Your task to perform on an android device: check the backup settings in the google photos Image 0: 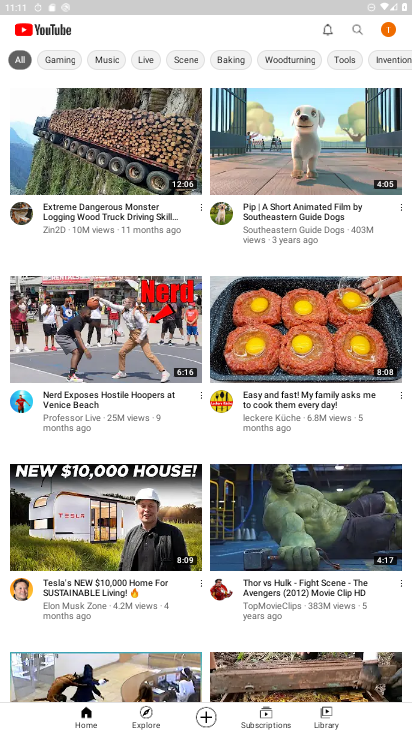
Step 0: press home button
Your task to perform on an android device: check the backup settings in the google photos Image 1: 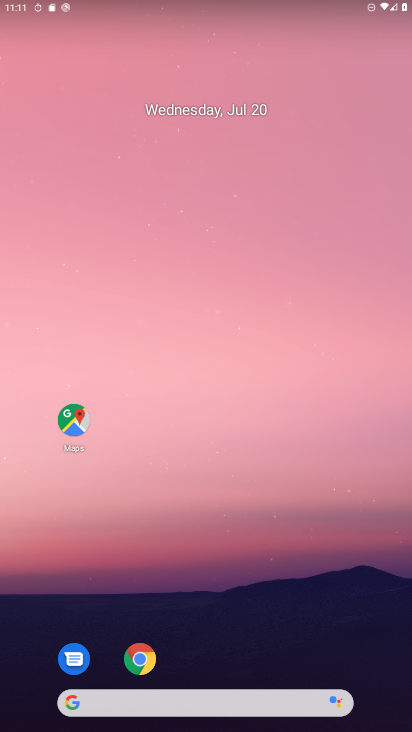
Step 1: drag from (345, 624) to (223, 8)
Your task to perform on an android device: check the backup settings in the google photos Image 2: 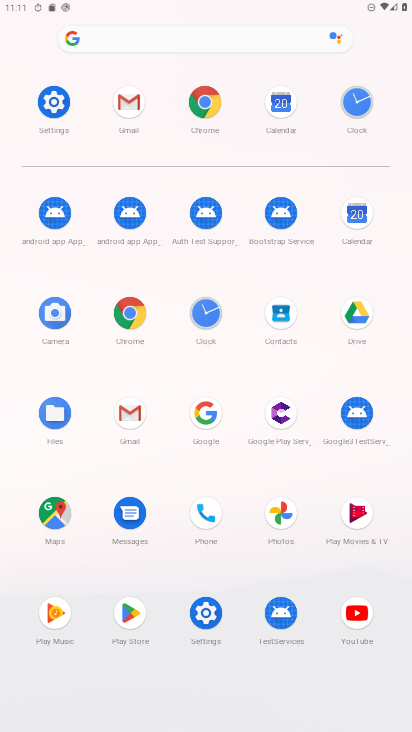
Step 2: click (287, 508)
Your task to perform on an android device: check the backup settings in the google photos Image 3: 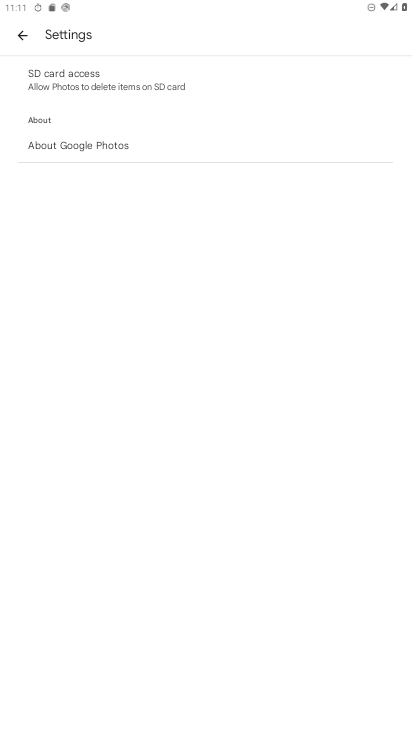
Step 3: click (29, 33)
Your task to perform on an android device: check the backup settings in the google photos Image 4: 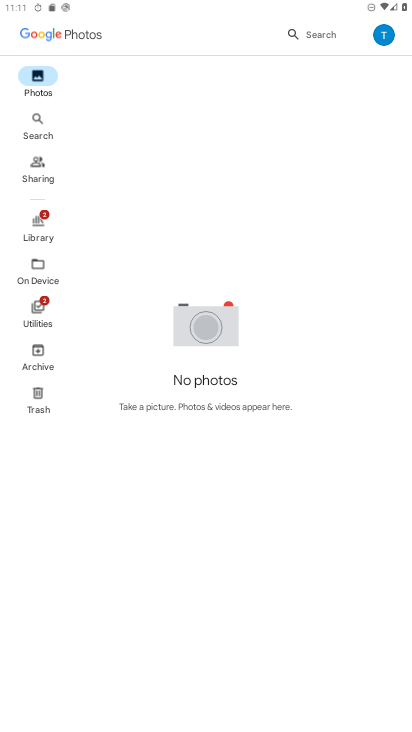
Step 4: click (395, 21)
Your task to perform on an android device: check the backup settings in the google photos Image 5: 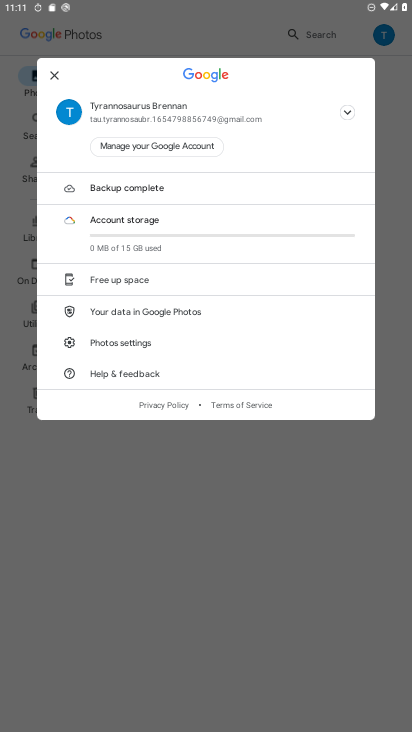
Step 5: click (136, 340)
Your task to perform on an android device: check the backup settings in the google photos Image 6: 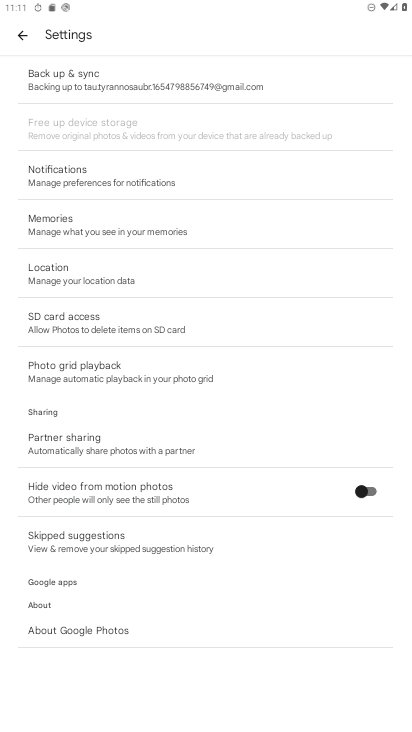
Step 6: click (135, 78)
Your task to perform on an android device: check the backup settings in the google photos Image 7: 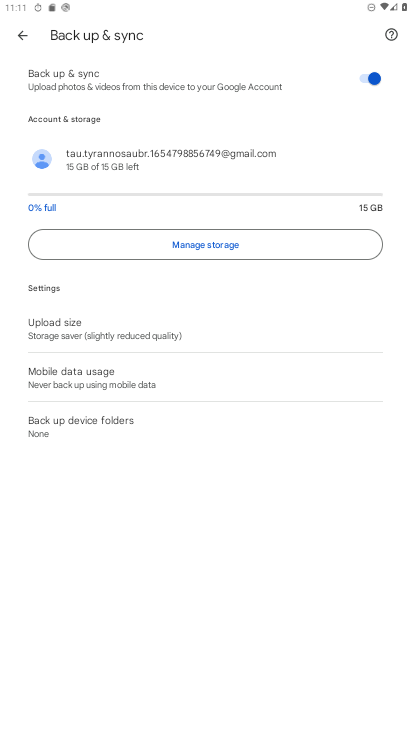
Step 7: task complete